Your task to perform on an android device: install app "DoorDash - Food Delivery" Image 0: 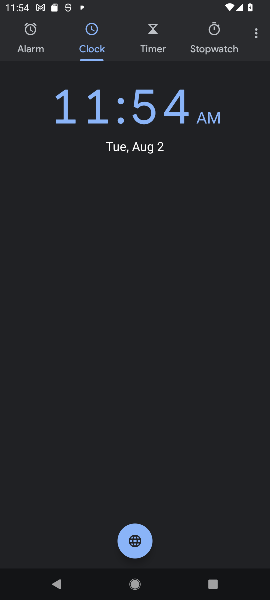
Step 0: press back button
Your task to perform on an android device: install app "DoorDash - Food Delivery" Image 1: 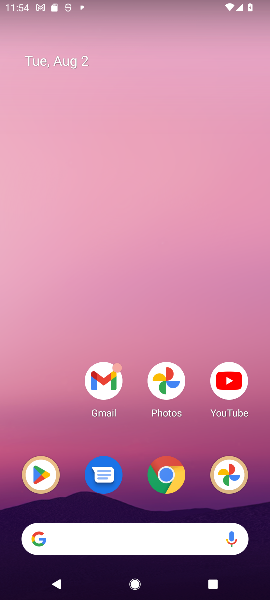
Step 1: click (46, 472)
Your task to perform on an android device: install app "DoorDash - Food Delivery" Image 2: 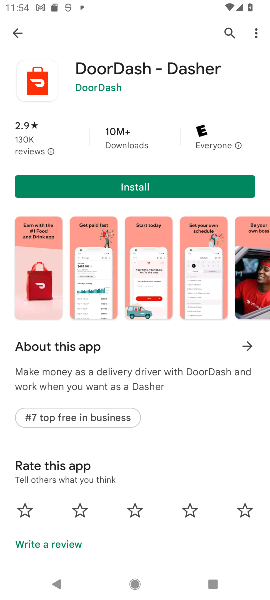
Step 2: click (231, 30)
Your task to perform on an android device: install app "DoorDash - Food Delivery" Image 3: 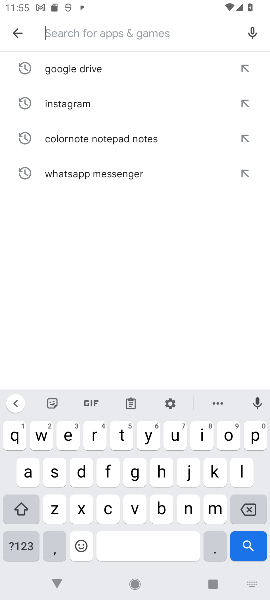
Step 3: type "DoorDash - Food Delivery"
Your task to perform on an android device: install app "DoorDash - Food Delivery" Image 4: 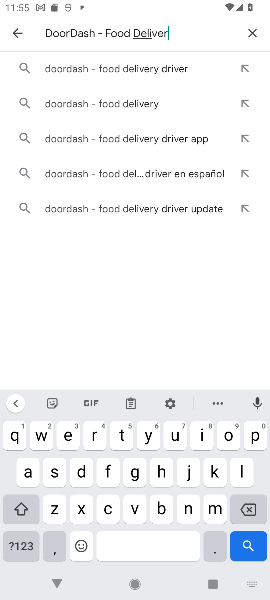
Step 4: type ""
Your task to perform on an android device: install app "DoorDash - Food Delivery" Image 5: 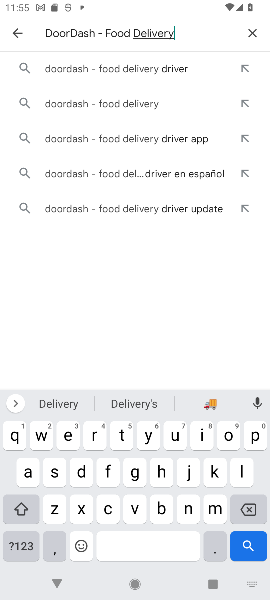
Step 5: click (100, 95)
Your task to perform on an android device: install app "DoorDash - Food Delivery" Image 6: 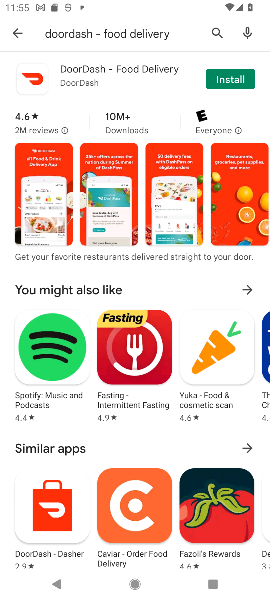
Step 6: click (226, 76)
Your task to perform on an android device: install app "DoorDash - Food Delivery" Image 7: 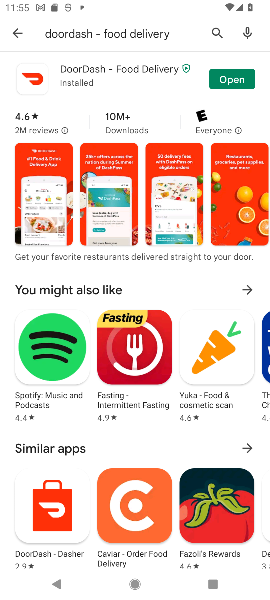
Step 7: task complete